Your task to perform on an android device: install app "Life360: Find Family & Friends" Image 0: 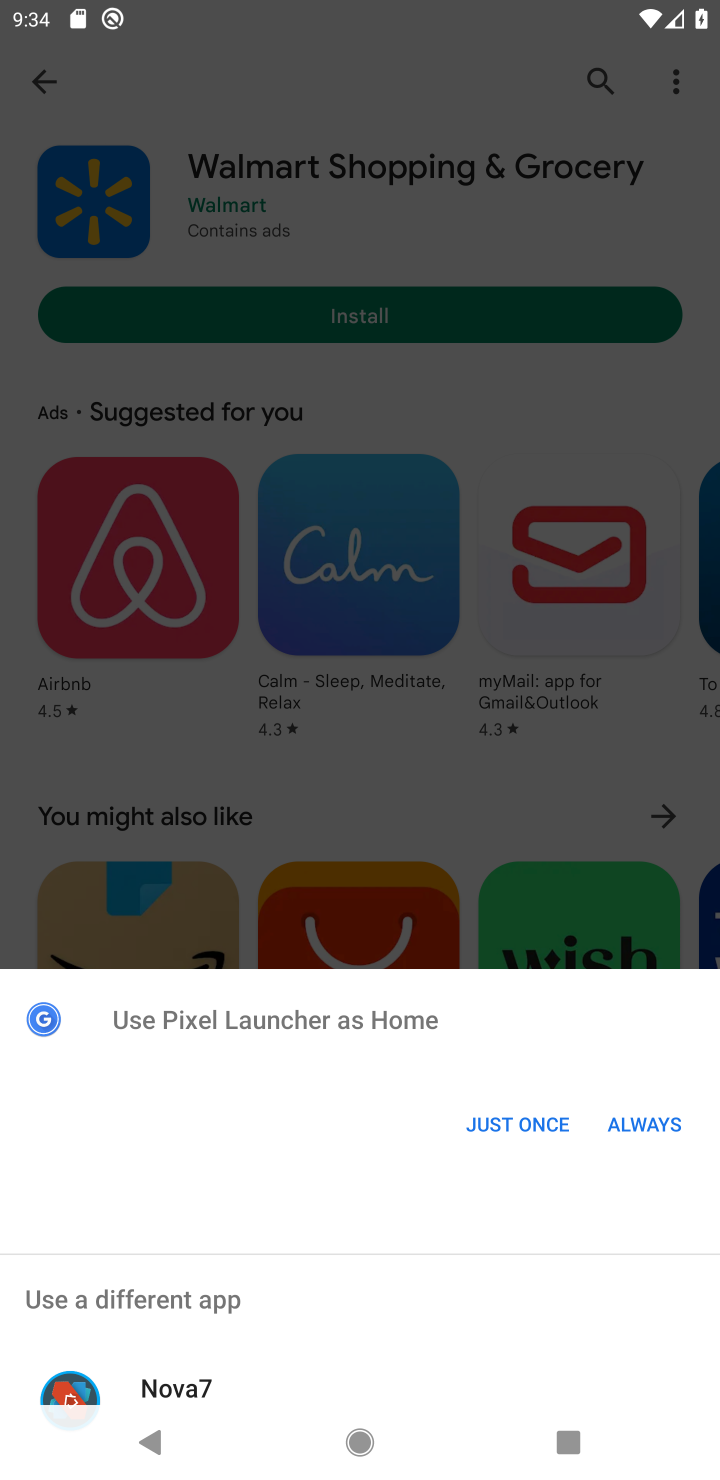
Step 0: press home button
Your task to perform on an android device: install app "Life360: Find Family & Friends" Image 1: 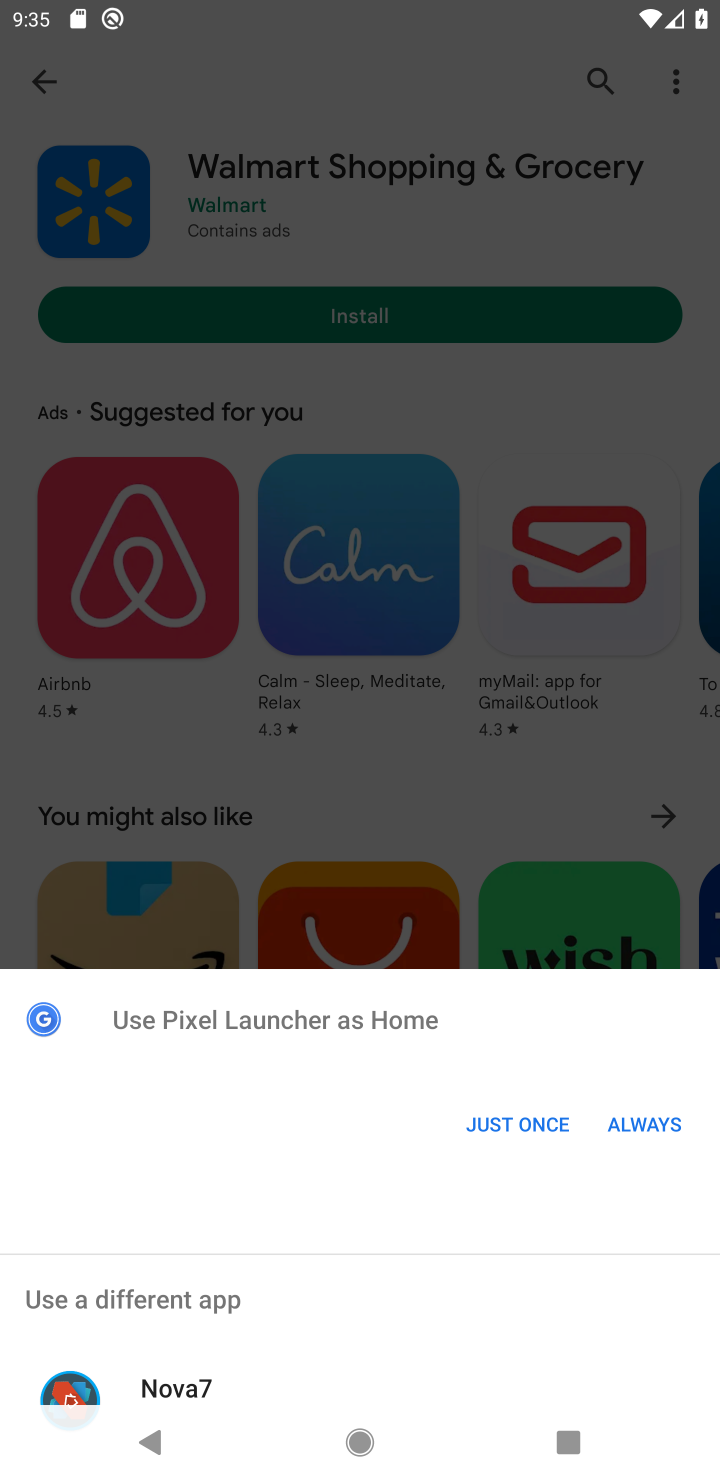
Step 1: click (519, 1126)
Your task to perform on an android device: install app "Life360: Find Family & Friends" Image 2: 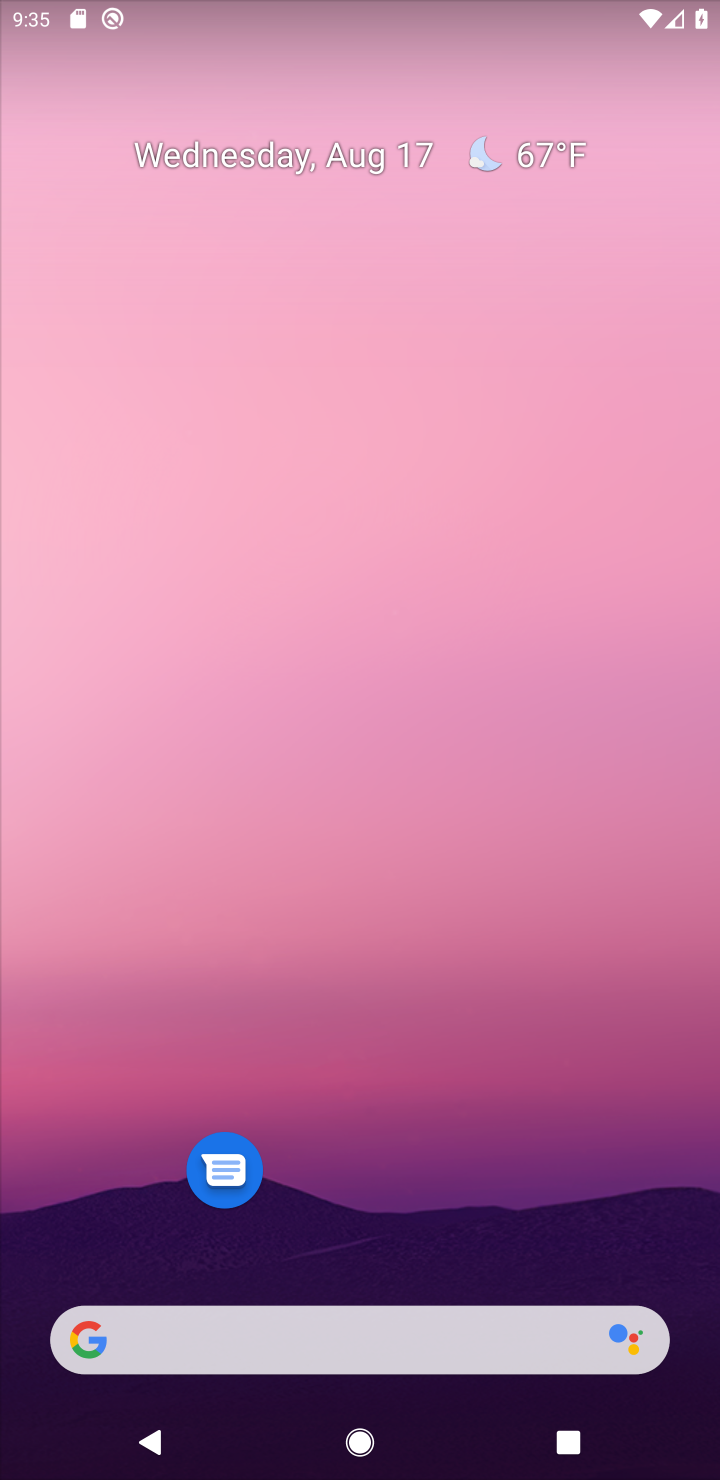
Step 2: drag from (410, 1283) to (239, 30)
Your task to perform on an android device: install app "Life360: Find Family & Friends" Image 3: 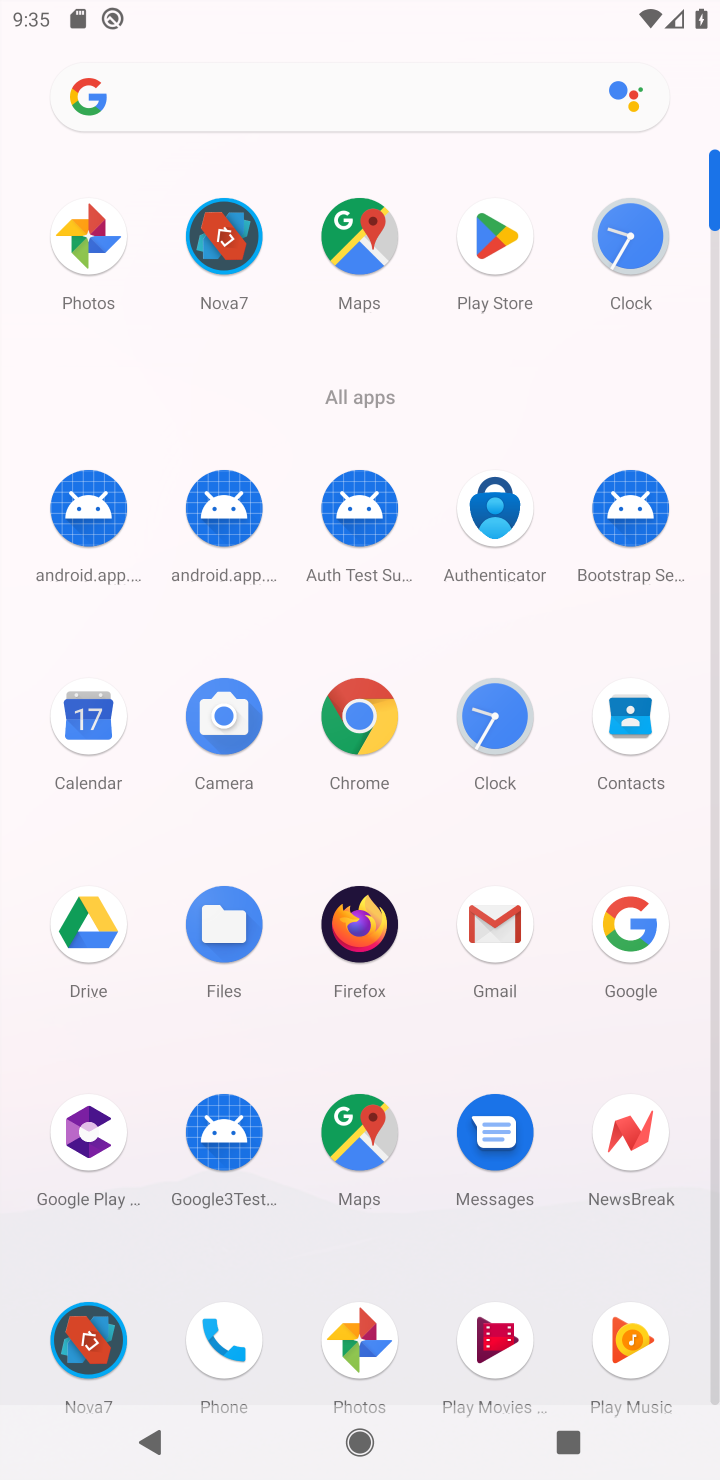
Step 3: click (493, 243)
Your task to perform on an android device: install app "Life360: Find Family & Friends" Image 4: 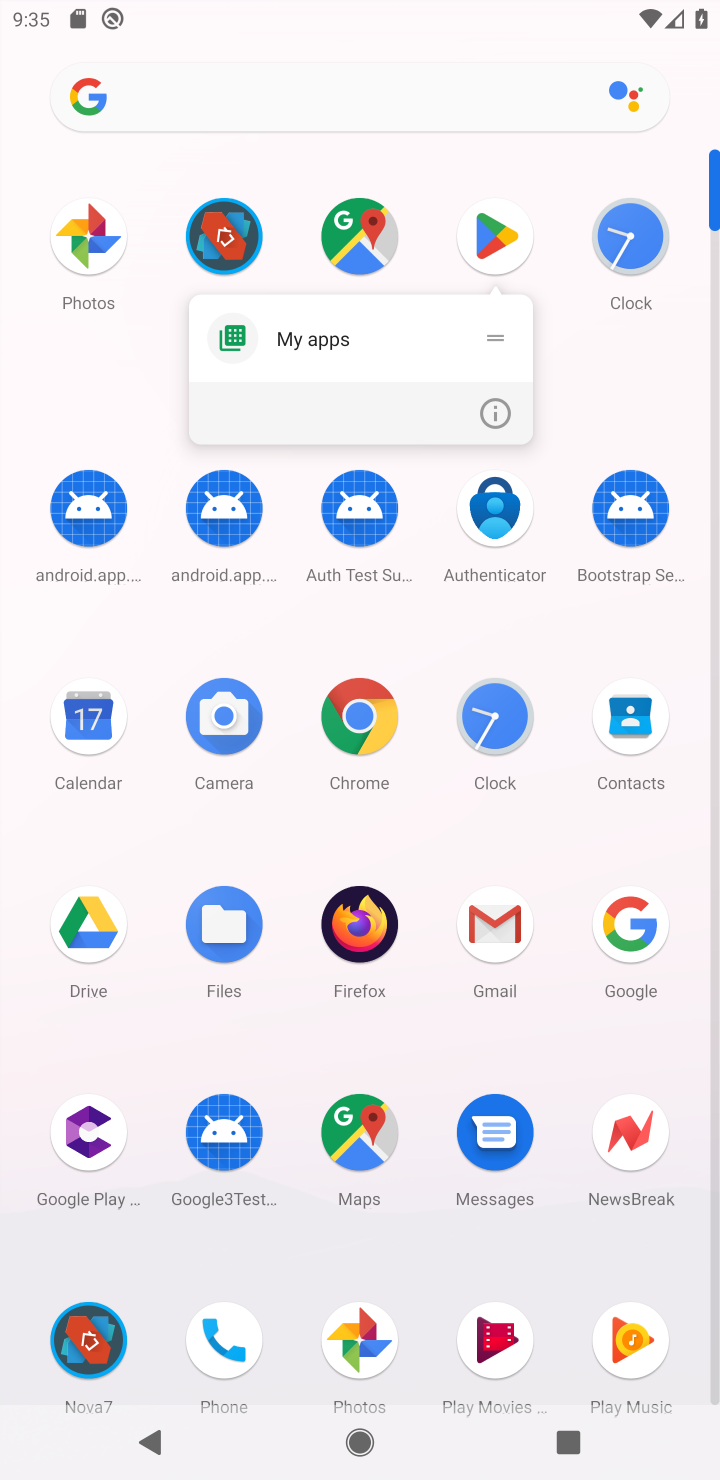
Step 4: click (493, 243)
Your task to perform on an android device: install app "Life360: Find Family & Friends" Image 5: 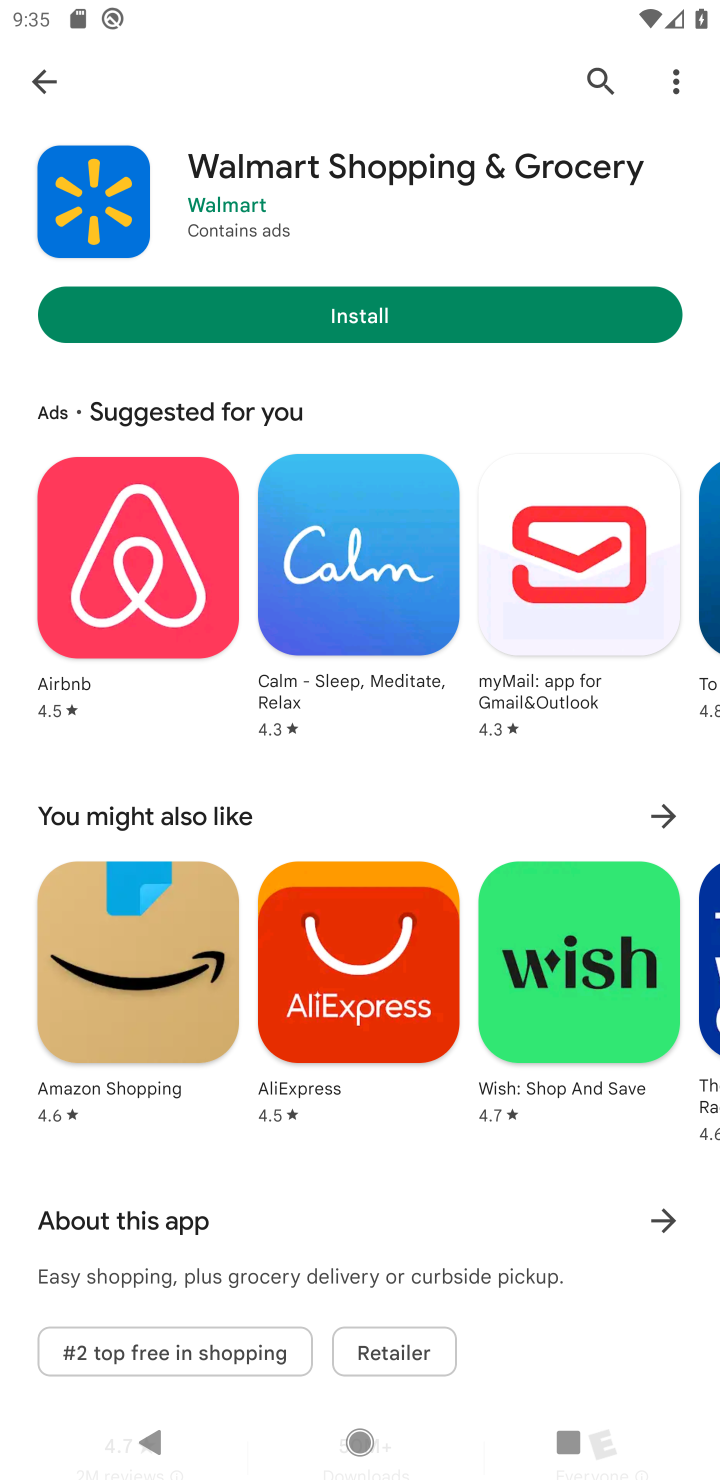
Step 5: click (42, 101)
Your task to perform on an android device: install app "Life360: Find Family & Friends" Image 6: 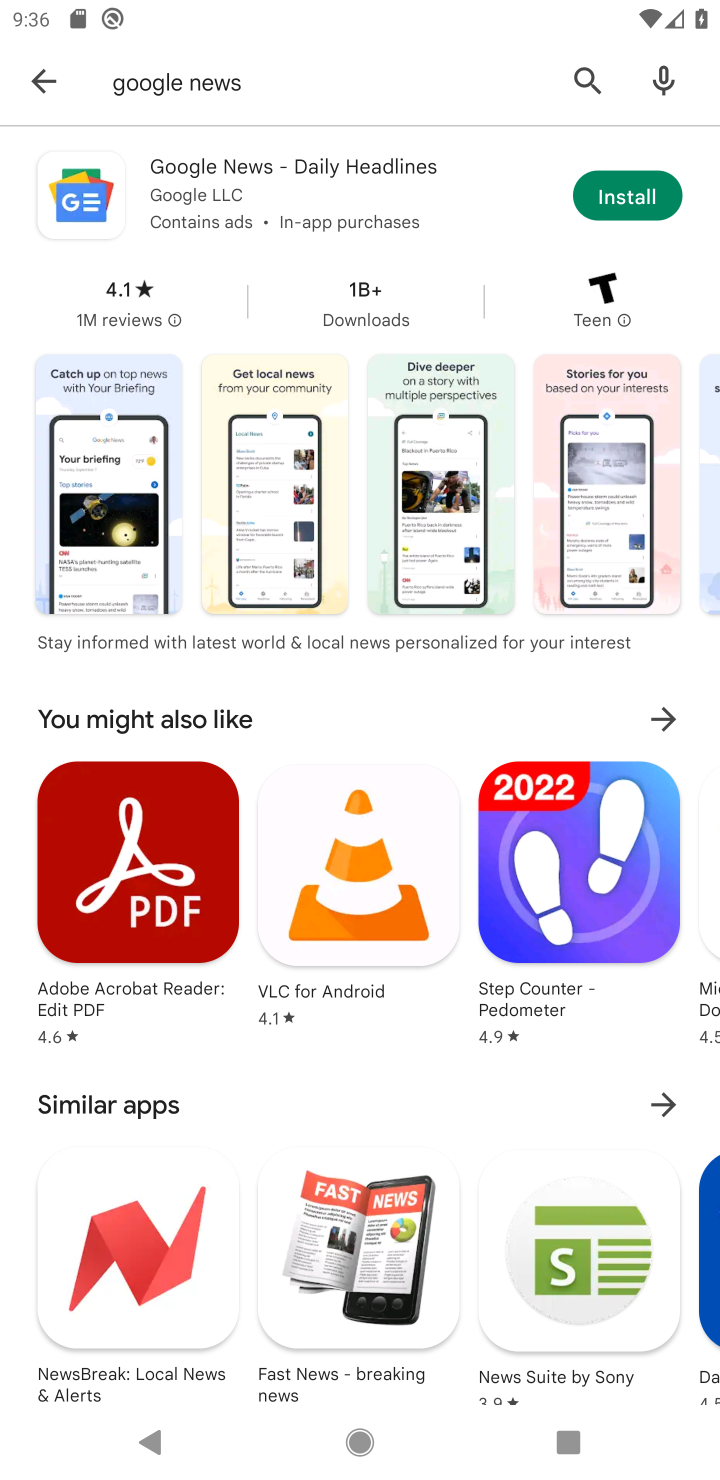
Step 6: click (31, 89)
Your task to perform on an android device: install app "Life360: Find Family & Friends" Image 7: 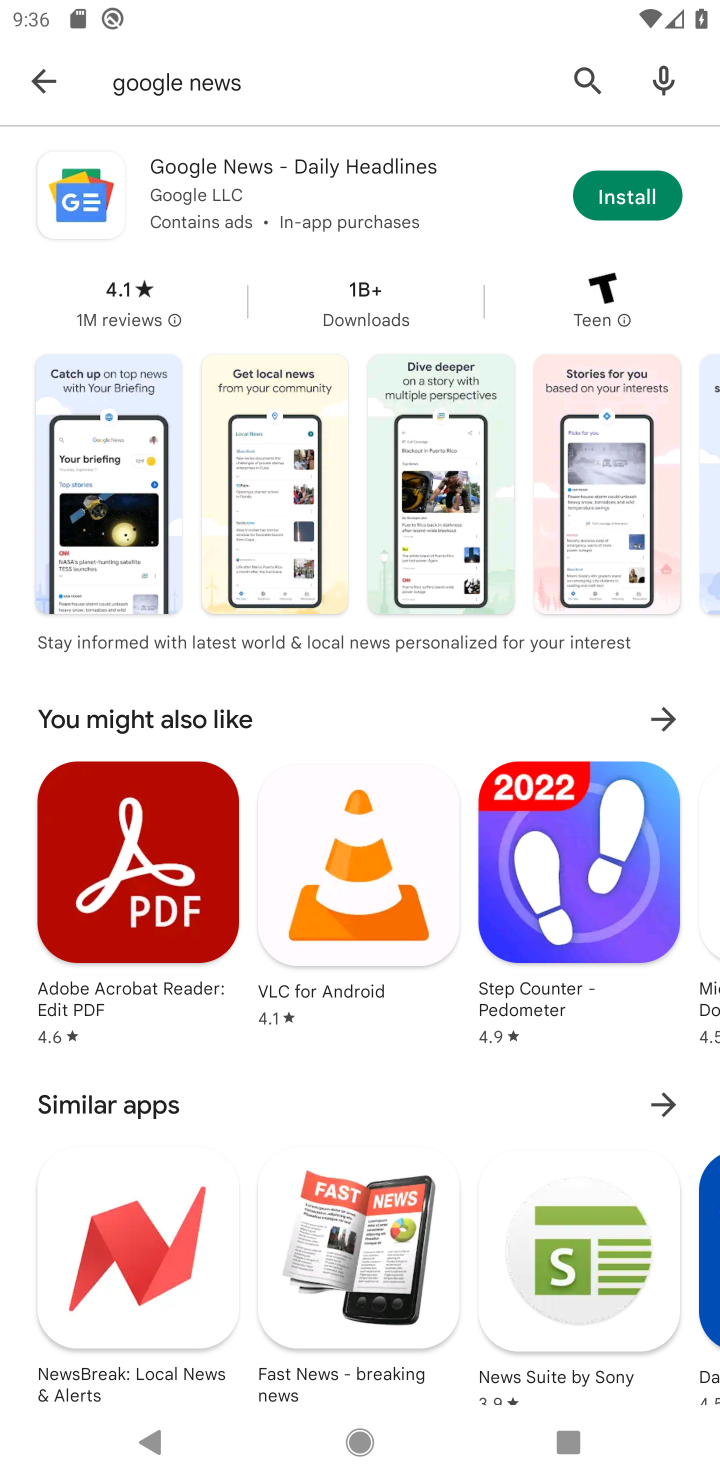
Step 7: click (34, 89)
Your task to perform on an android device: install app "Life360: Find Family & Friends" Image 8: 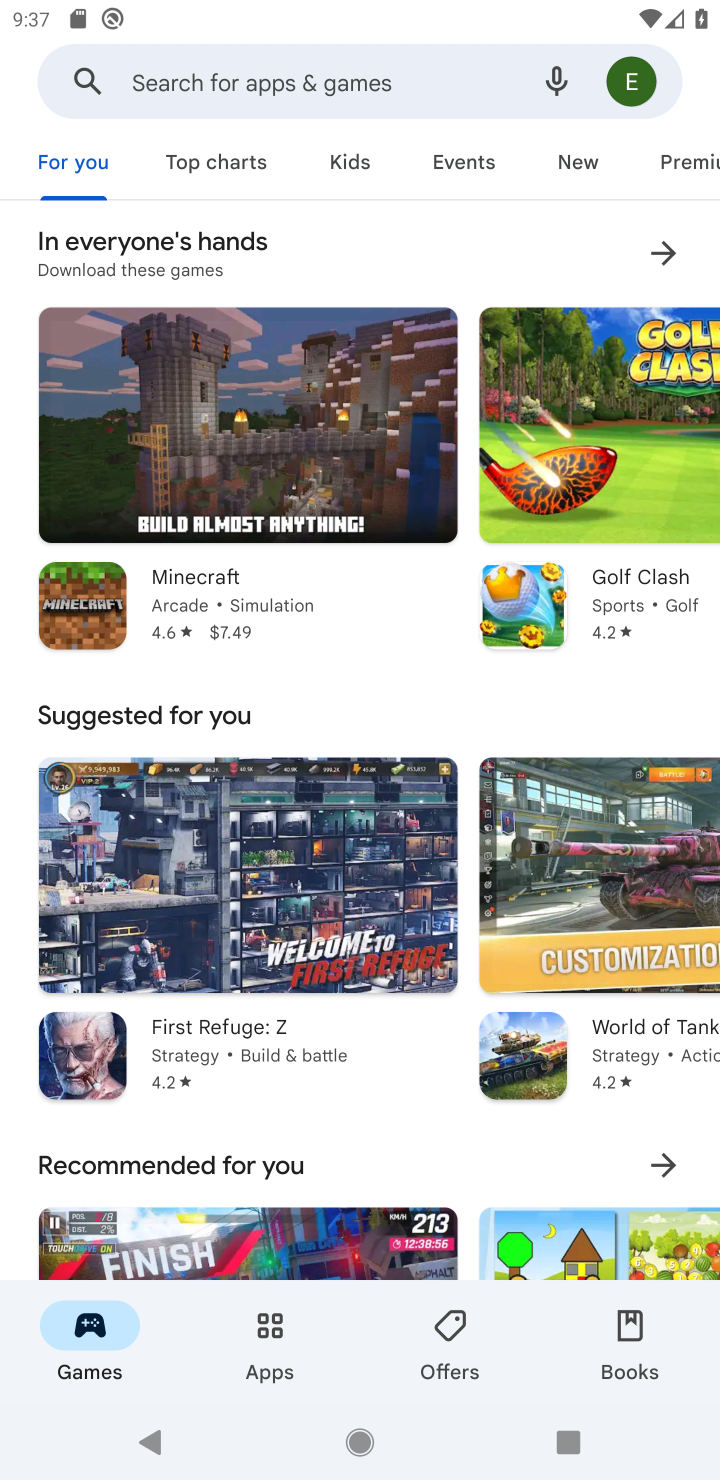
Step 8: click (229, 75)
Your task to perform on an android device: install app "Life360: Find Family & Friends" Image 9: 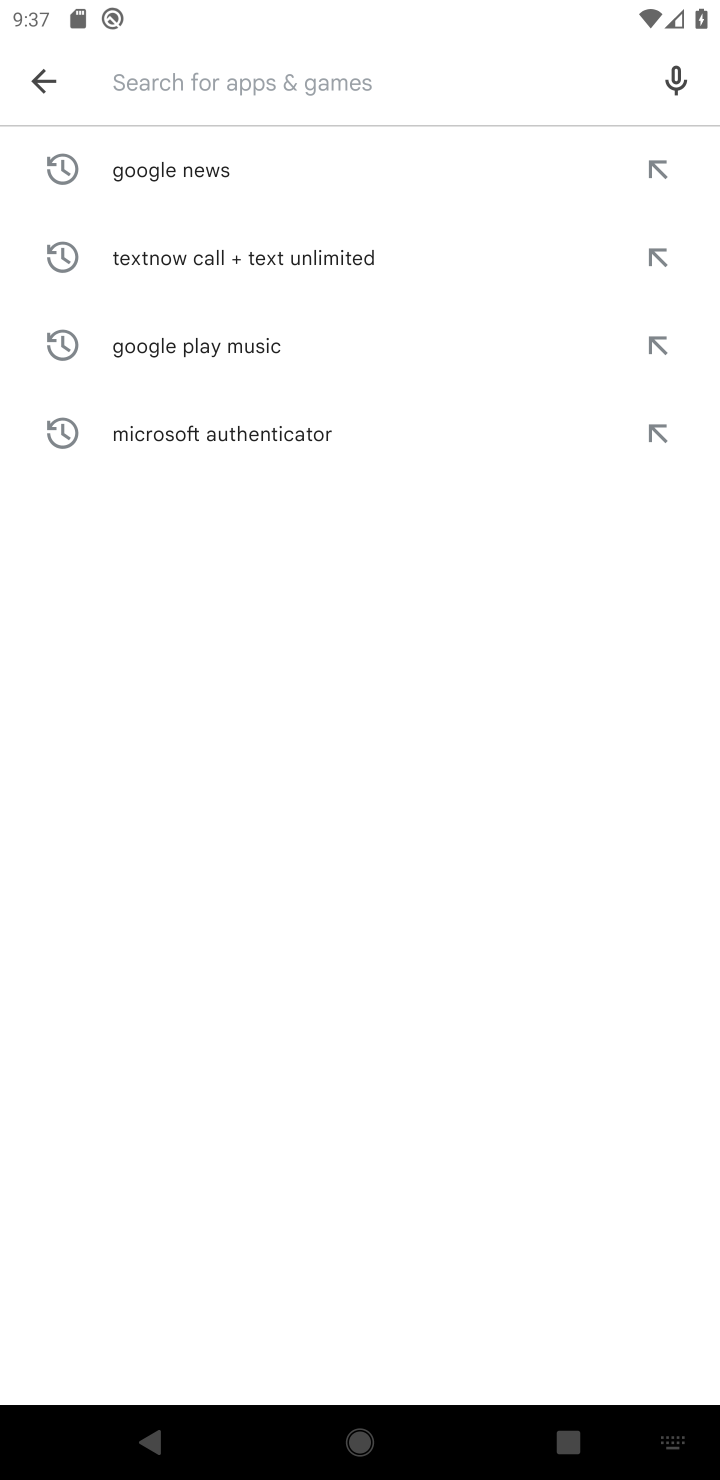
Step 9: type "Life360: Find Family & Friends"
Your task to perform on an android device: install app "Life360: Find Family & Friends" Image 10: 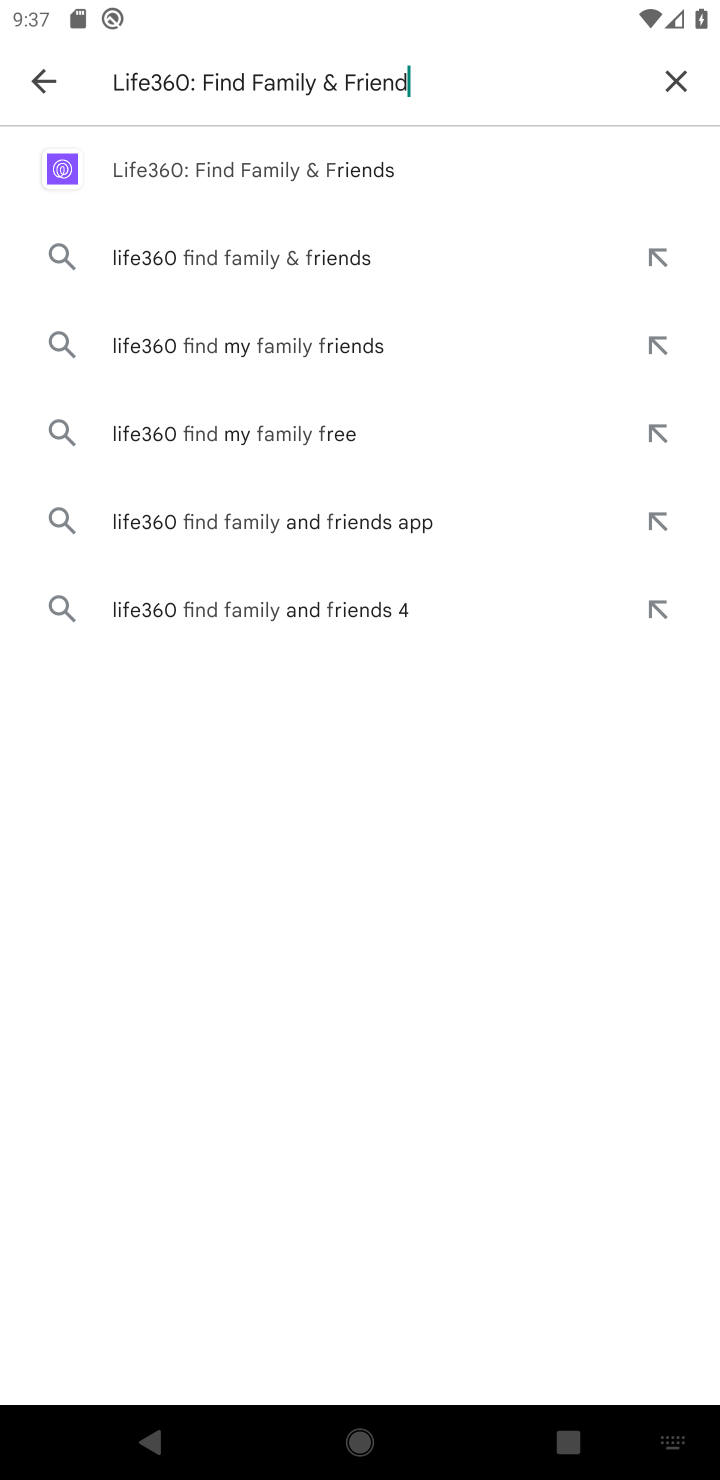
Step 10: type ""
Your task to perform on an android device: install app "Life360: Find Family & Friends" Image 11: 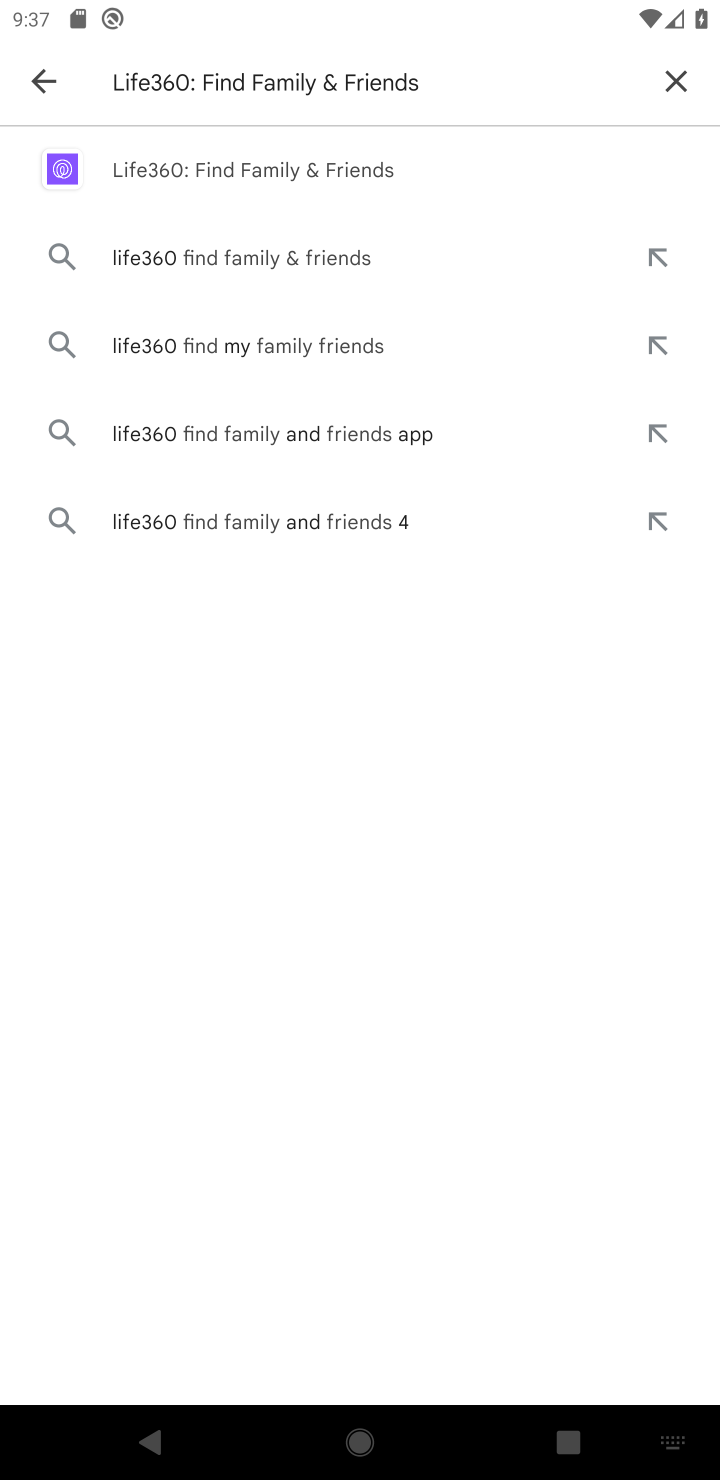
Step 11: click (146, 160)
Your task to perform on an android device: install app "Life360: Find Family & Friends" Image 12: 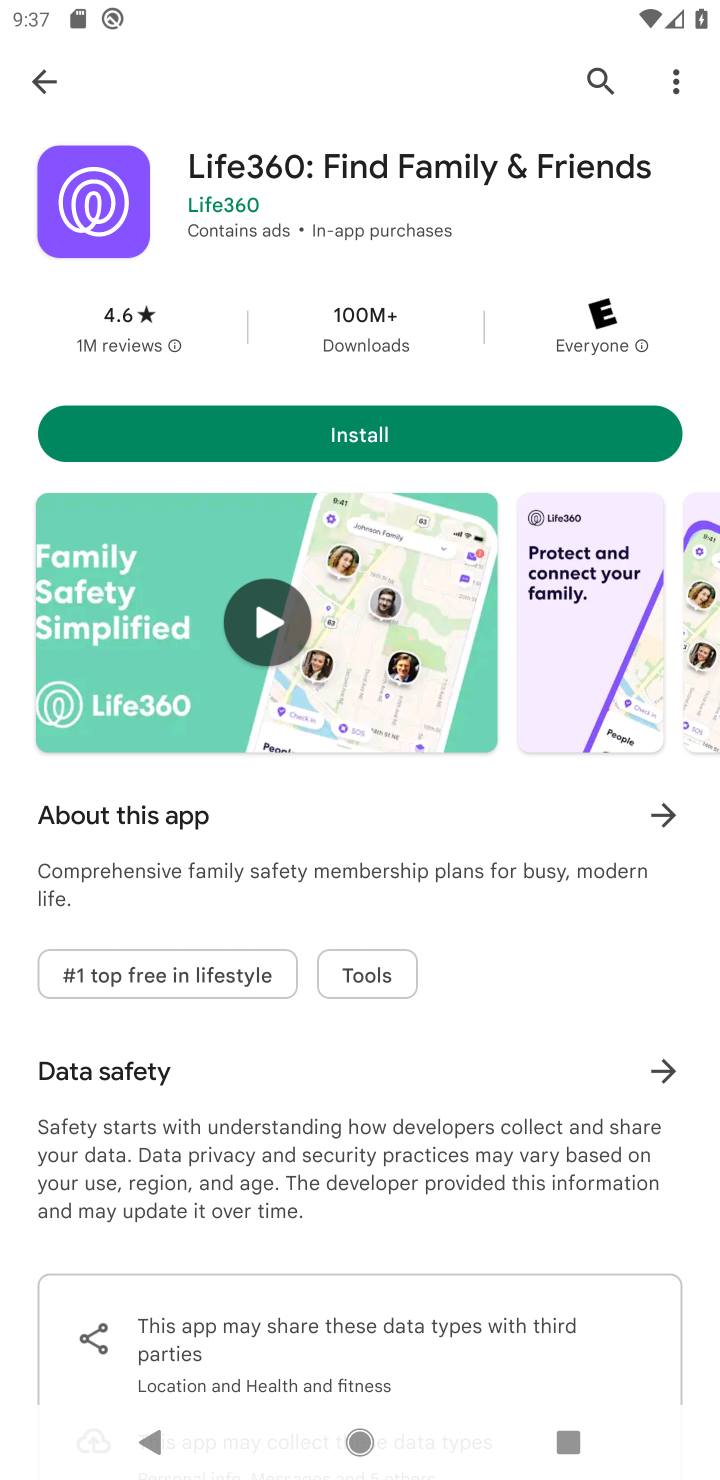
Step 12: click (241, 441)
Your task to perform on an android device: install app "Life360: Find Family & Friends" Image 13: 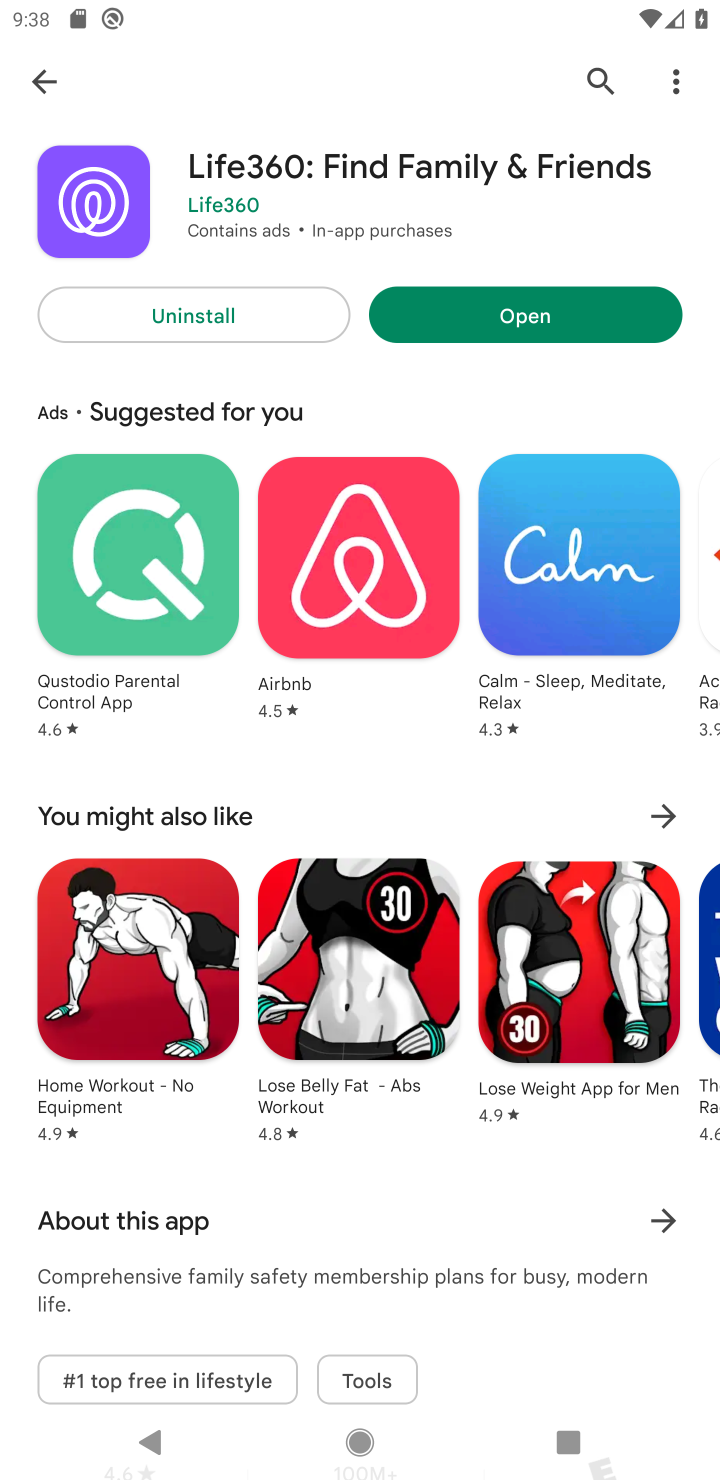
Step 13: click (488, 319)
Your task to perform on an android device: install app "Life360: Find Family & Friends" Image 14: 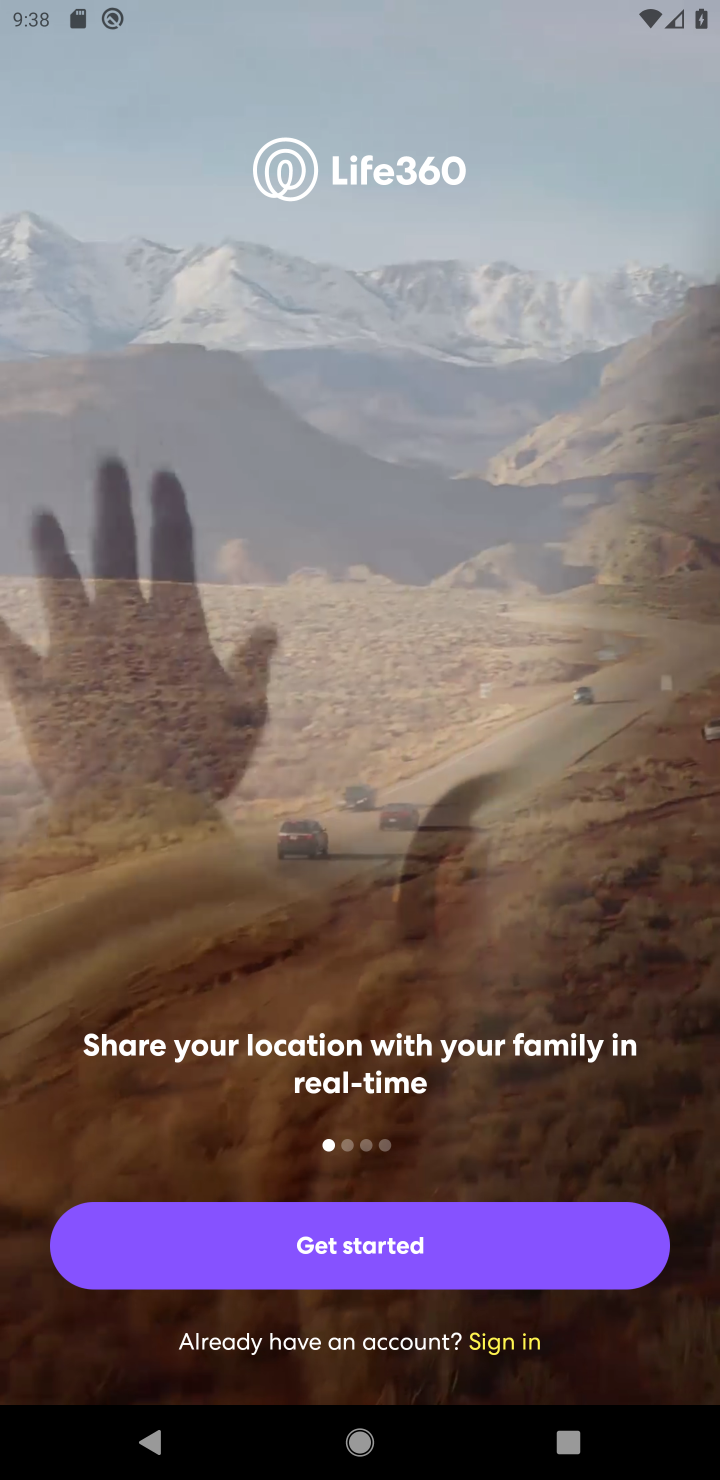
Step 14: task complete